Your task to perform on an android device: turn on showing notifications on the lock screen Image 0: 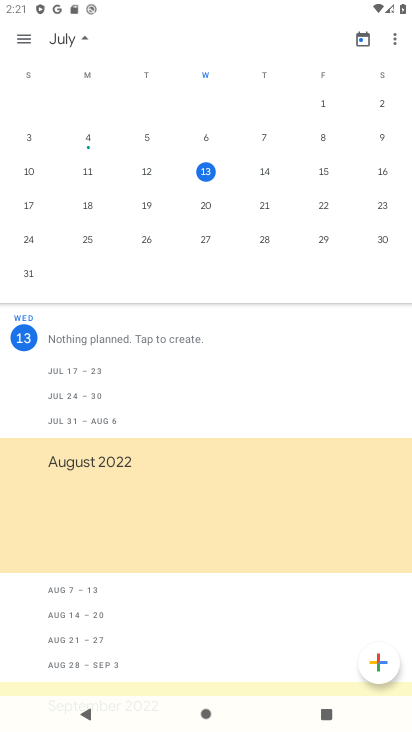
Step 0: drag from (217, 6) to (262, 705)
Your task to perform on an android device: turn on showing notifications on the lock screen Image 1: 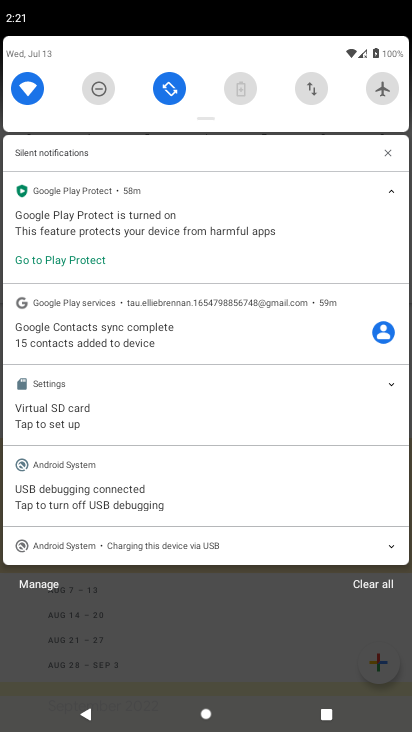
Step 1: drag from (255, 60) to (271, 682)
Your task to perform on an android device: turn on showing notifications on the lock screen Image 2: 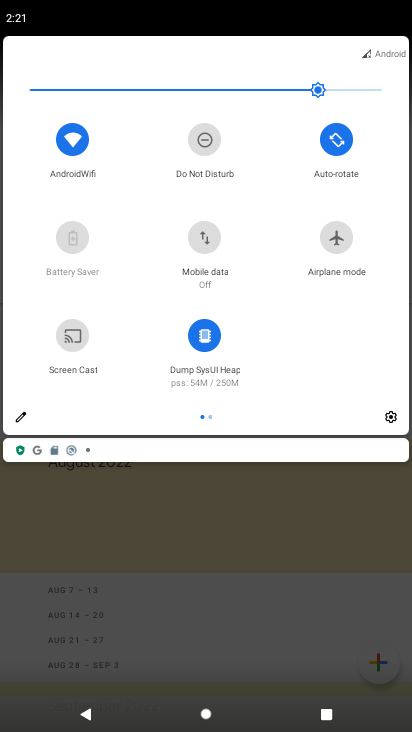
Step 2: click (390, 414)
Your task to perform on an android device: turn on showing notifications on the lock screen Image 3: 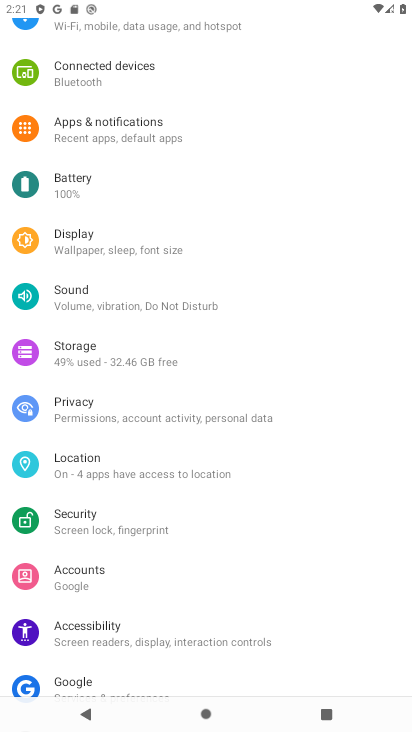
Step 3: click (113, 133)
Your task to perform on an android device: turn on showing notifications on the lock screen Image 4: 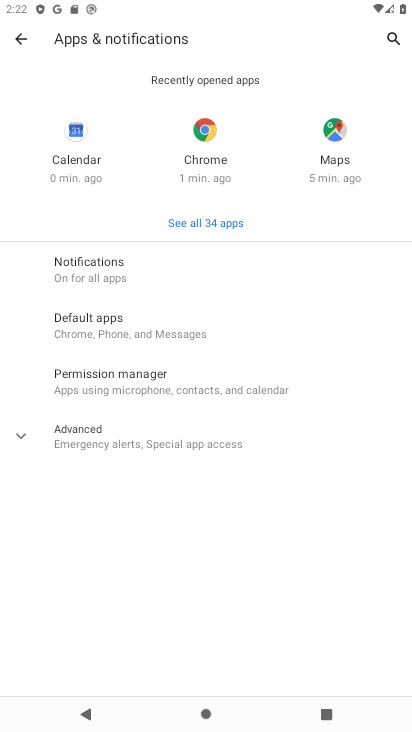
Step 4: click (120, 262)
Your task to perform on an android device: turn on showing notifications on the lock screen Image 5: 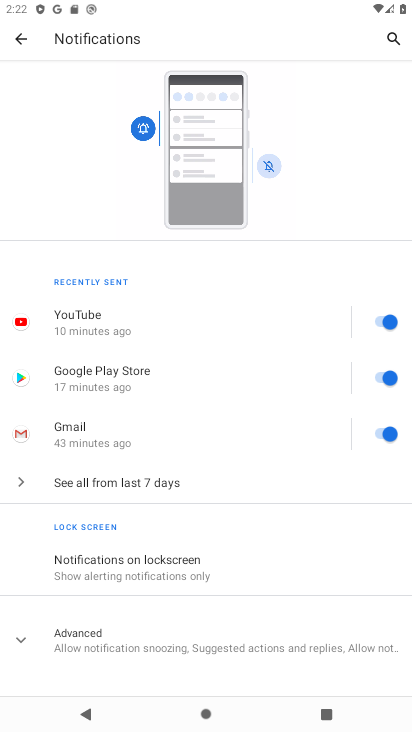
Step 5: click (167, 582)
Your task to perform on an android device: turn on showing notifications on the lock screen Image 6: 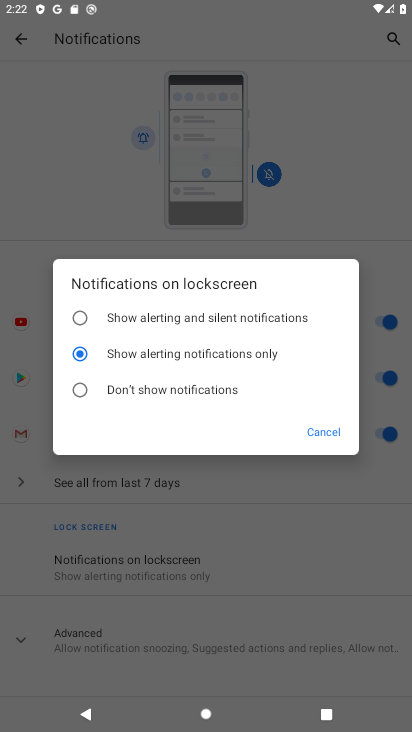
Step 6: click (232, 320)
Your task to perform on an android device: turn on showing notifications on the lock screen Image 7: 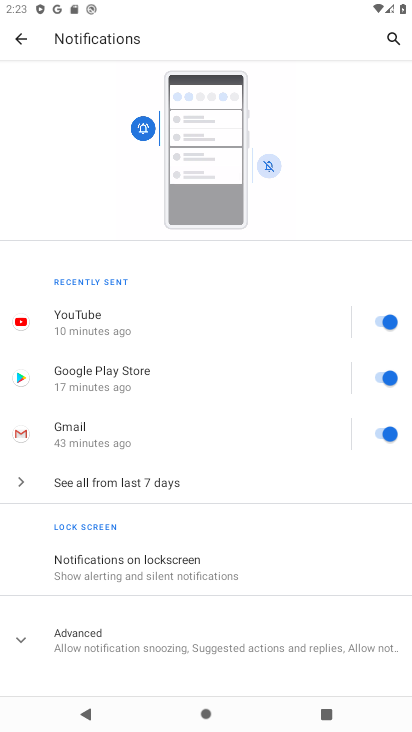
Step 7: task complete